Your task to perform on an android device: open app "McDonald's" Image 0: 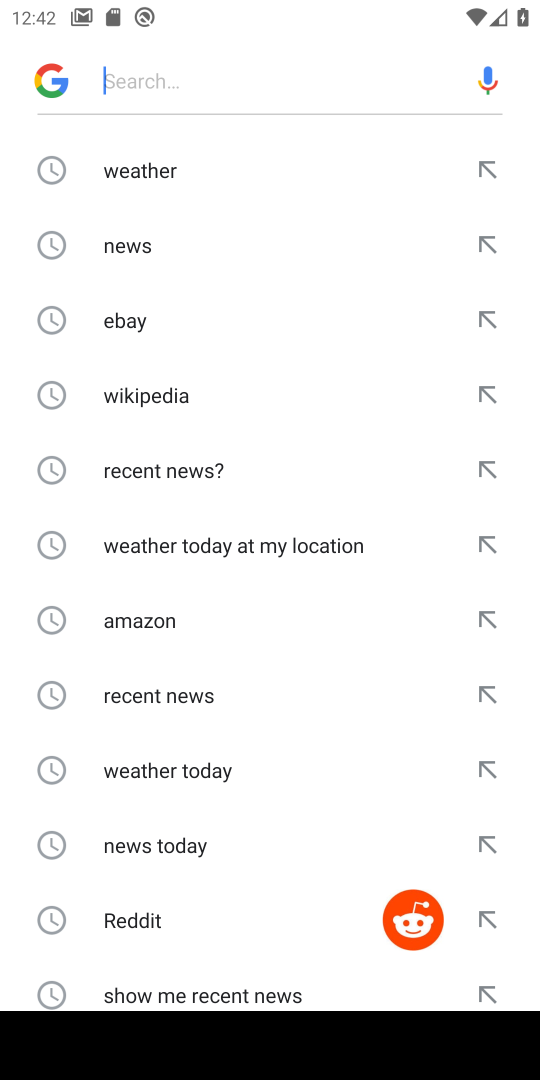
Step 0: press home button
Your task to perform on an android device: open app "McDonald's" Image 1: 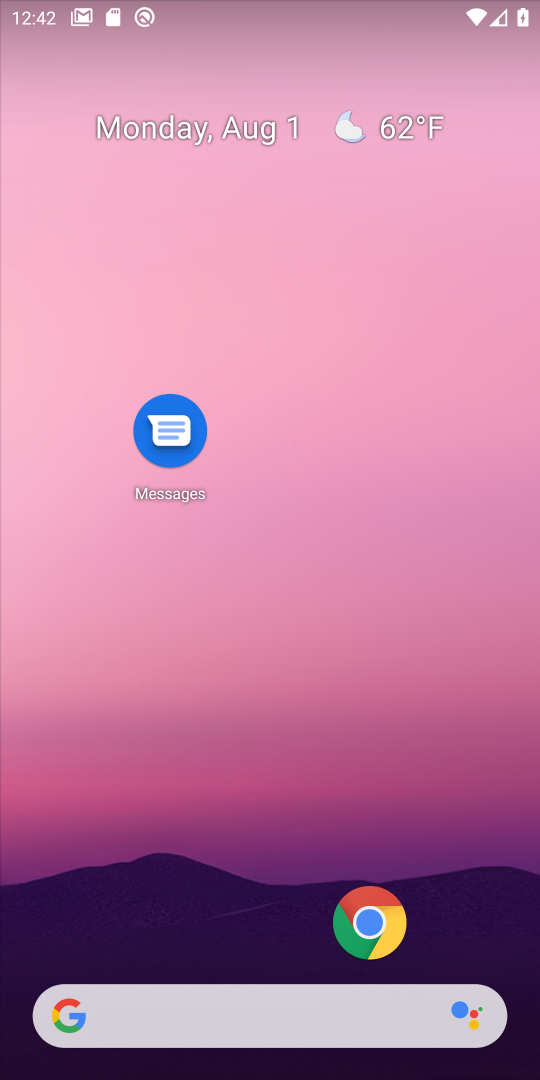
Step 1: drag from (233, 882) to (252, 308)
Your task to perform on an android device: open app "McDonald's" Image 2: 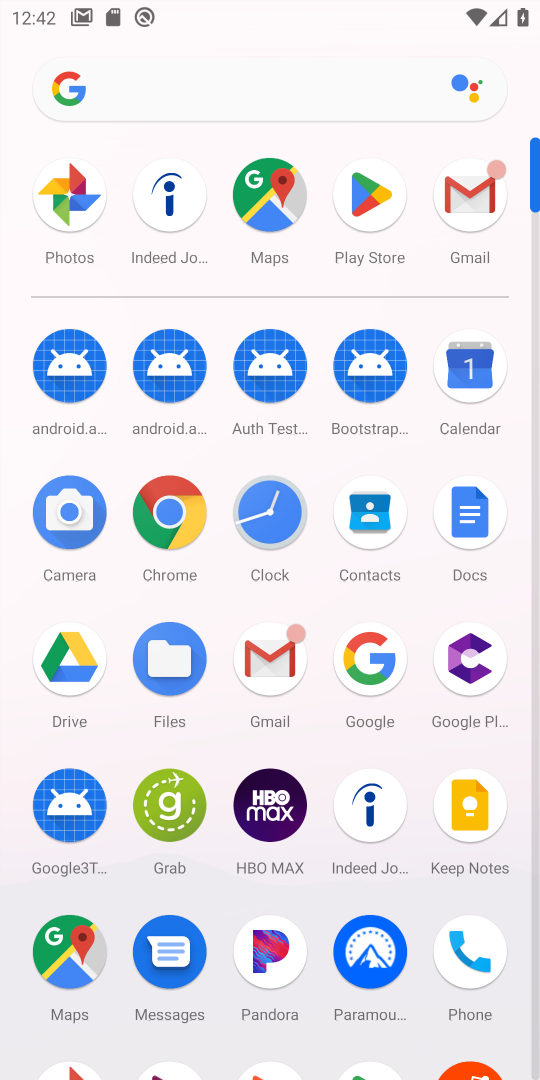
Step 2: click (368, 204)
Your task to perform on an android device: open app "McDonald's" Image 3: 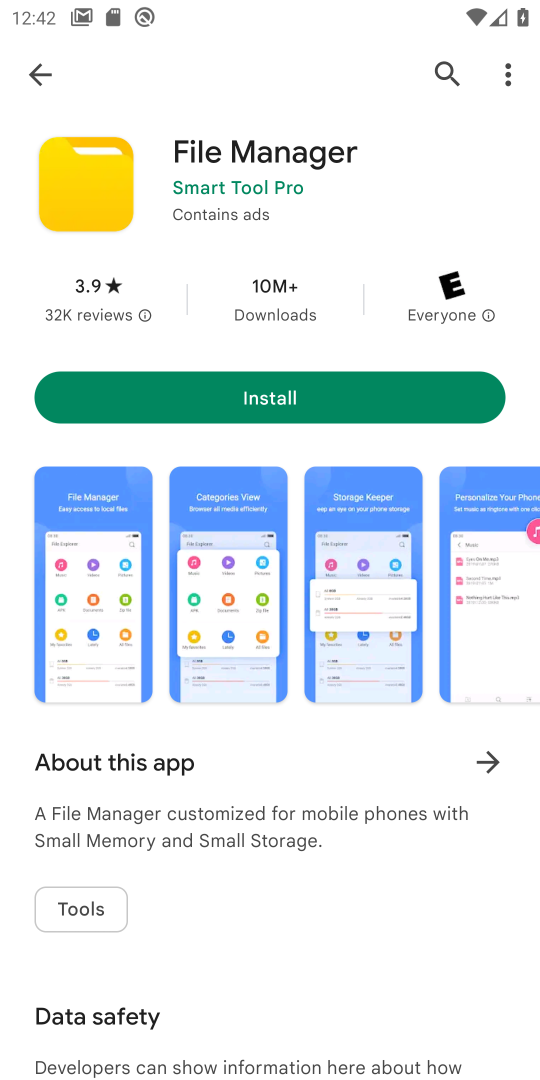
Step 3: click (433, 72)
Your task to perform on an android device: open app "McDonald's" Image 4: 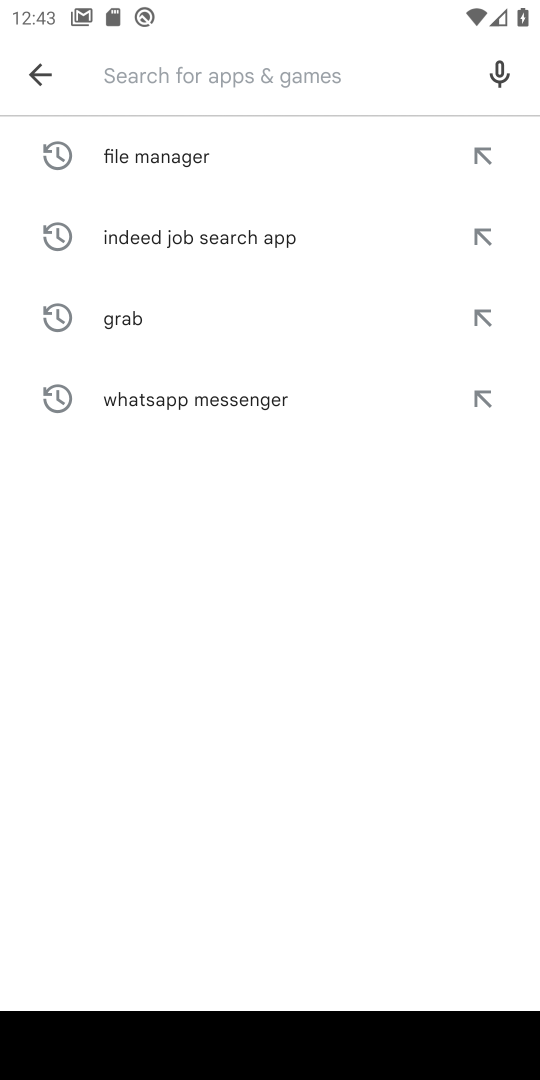
Step 4: type "McDonald's"
Your task to perform on an android device: open app "McDonald's" Image 5: 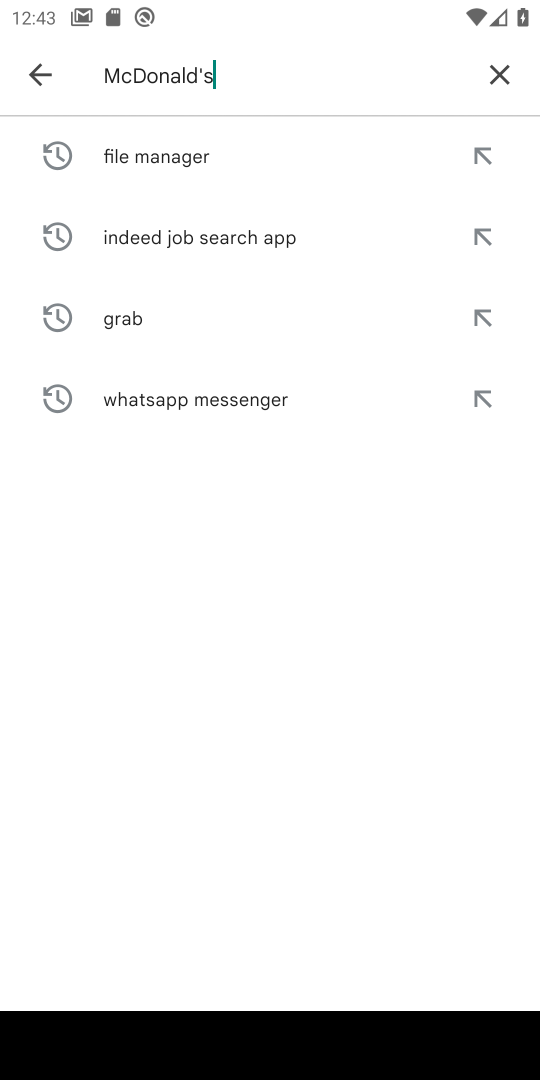
Step 5: type ""
Your task to perform on an android device: open app "McDonald's" Image 6: 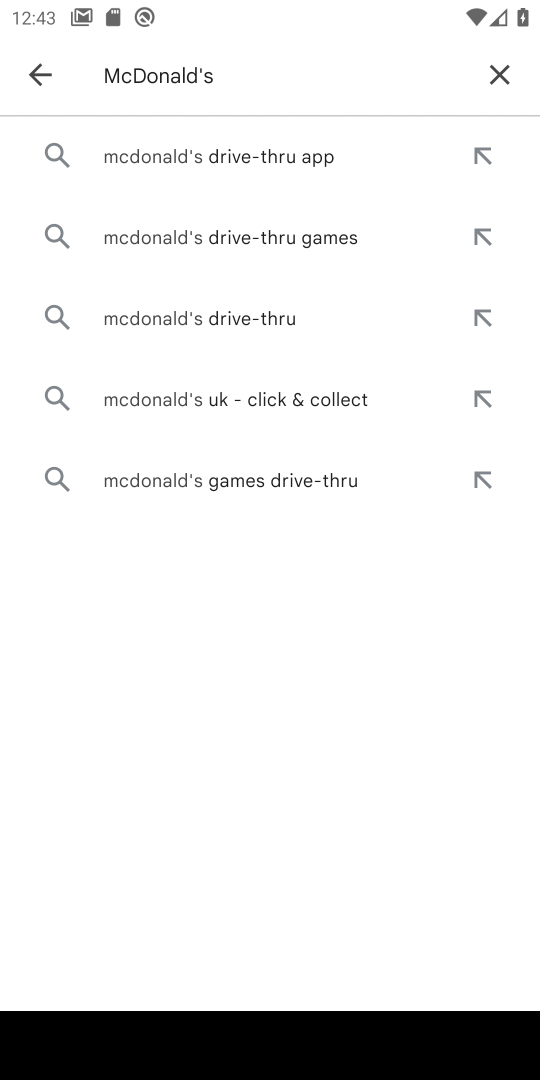
Step 6: click (271, 169)
Your task to perform on an android device: open app "McDonald's" Image 7: 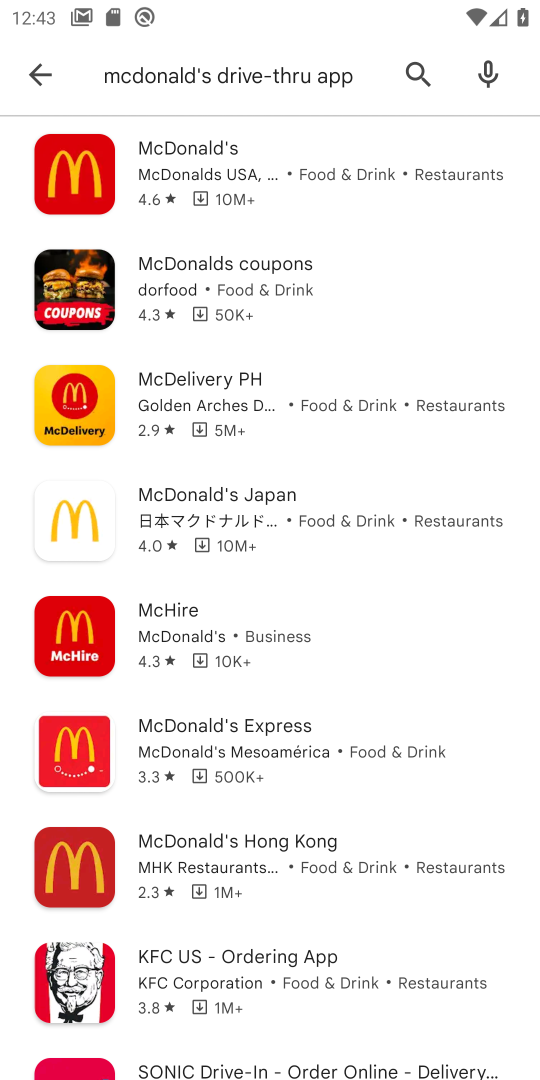
Step 7: click (354, 146)
Your task to perform on an android device: open app "McDonald's" Image 8: 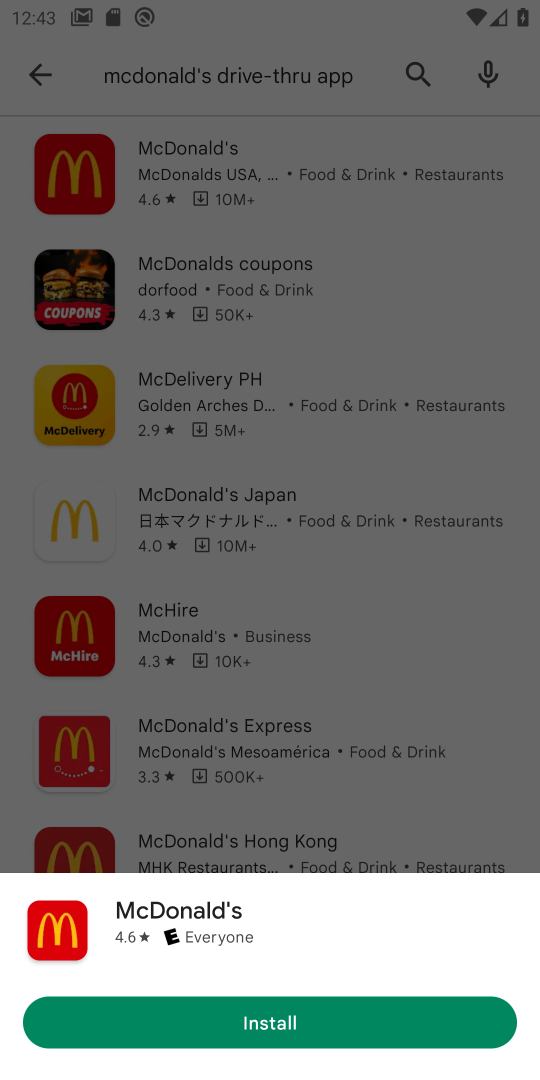
Step 8: task complete